Your task to perform on an android device: toggle pop-ups in chrome Image 0: 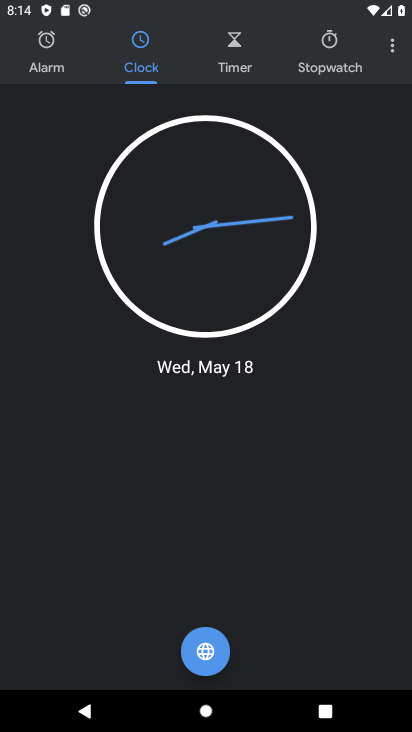
Step 0: press home button
Your task to perform on an android device: toggle pop-ups in chrome Image 1: 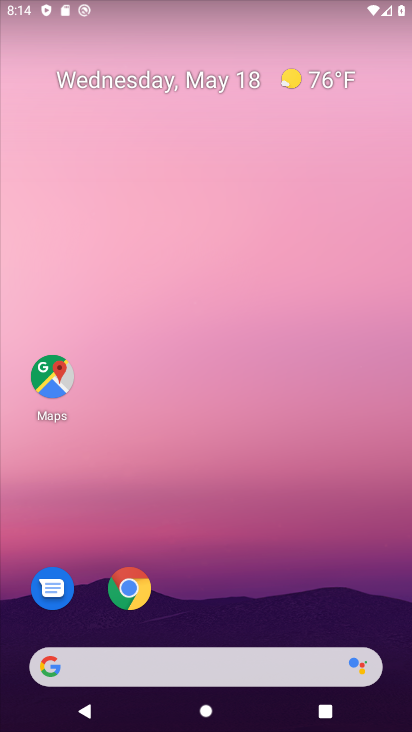
Step 1: click (107, 582)
Your task to perform on an android device: toggle pop-ups in chrome Image 2: 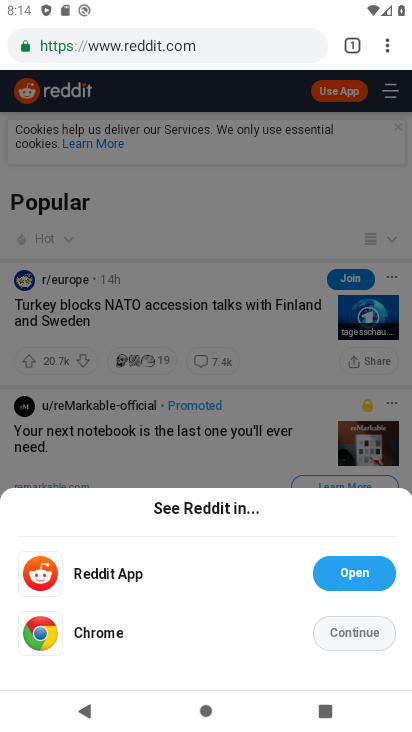
Step 2: click (394, 43)
Your task to perform on an android device: toggle pop-ups in chrome Image 3: 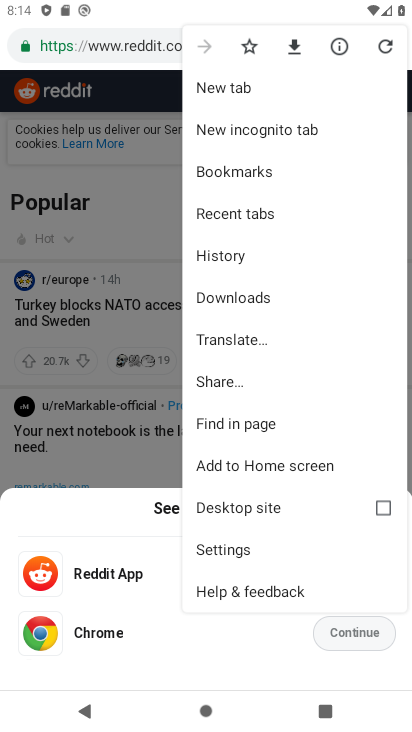
Step 3: click (255, 561)
Your task to perform on an android device: toggle pop-ups in chrome Image 4: 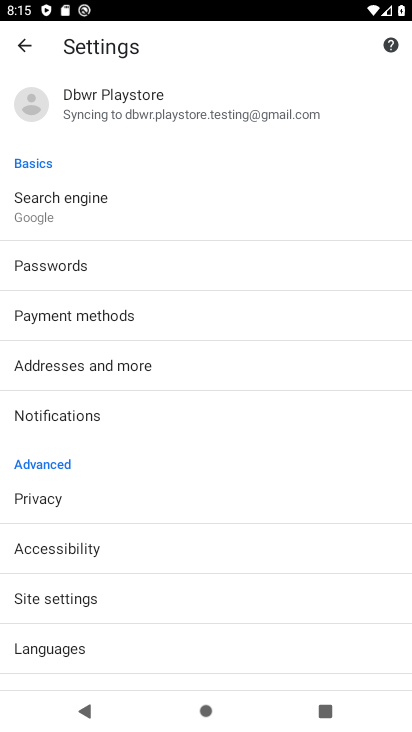
Step 4: click (171, 598)
Your task to perform on an android device: toggle pop-ups in chrome Image 5: 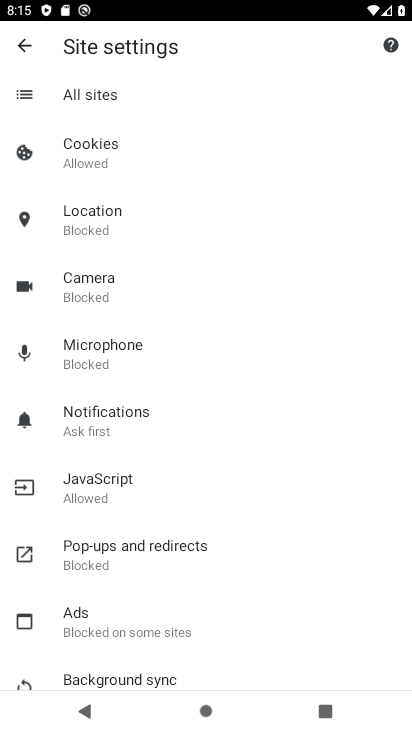
Step 5: click (155, 566)
Your task to perform on an android device: toggle pop-ups in chrome Image 6: 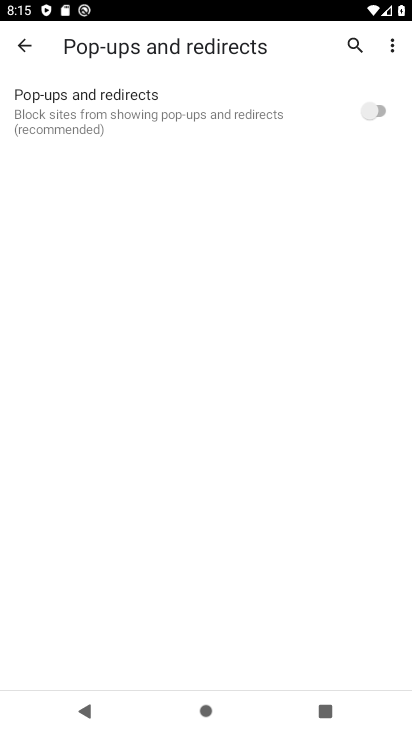
Step 6: click (364, 111)
Your task to perform on an android device: toggle pop-ups in chrome Image 7: 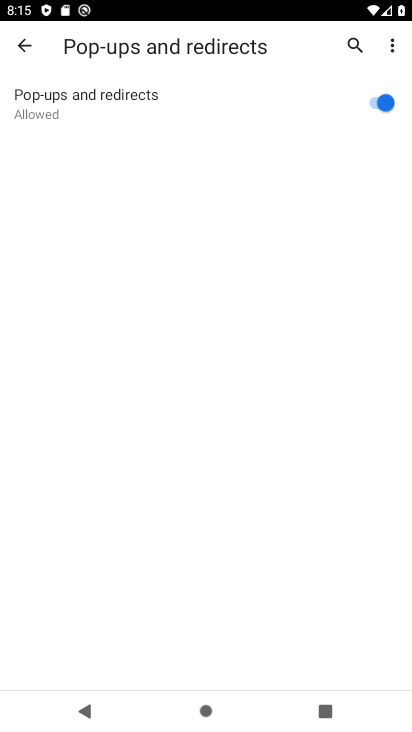
Step 7: task complete